Your task to perform on an android device: turn off translation in the chrome app Image 0: 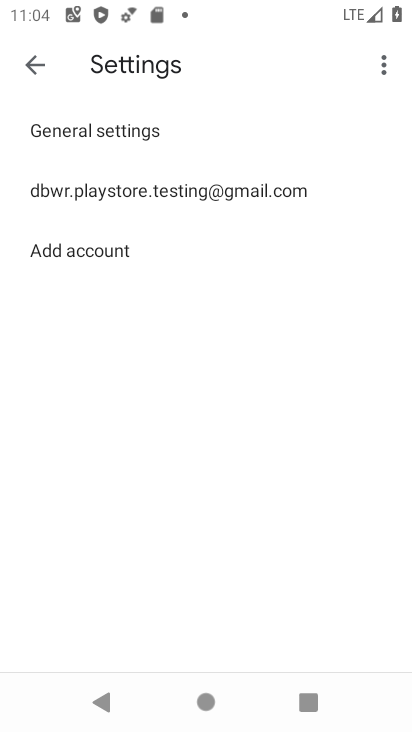
Step 0: press home button
Your task to perform on an android device: turn off translation in the chrome app Image 1: 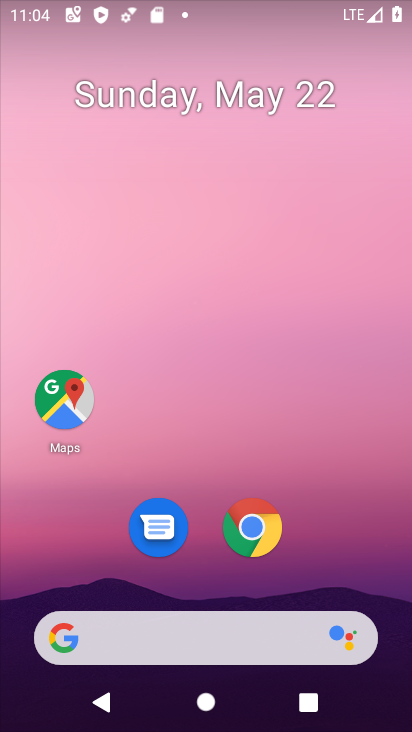
Step 1: click (248, 536)
Your task to perform on an android device: turn off translation in the chrome app Image 2: 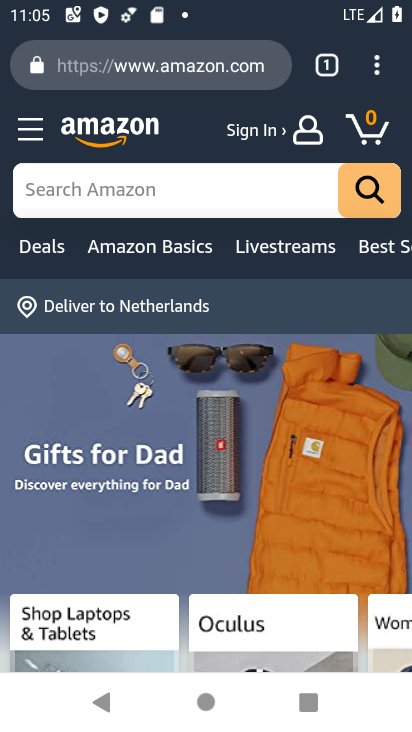
Step 2: click (385, 63)
Your task to perform on an android device: turn off translation in the chrome app Image 3: 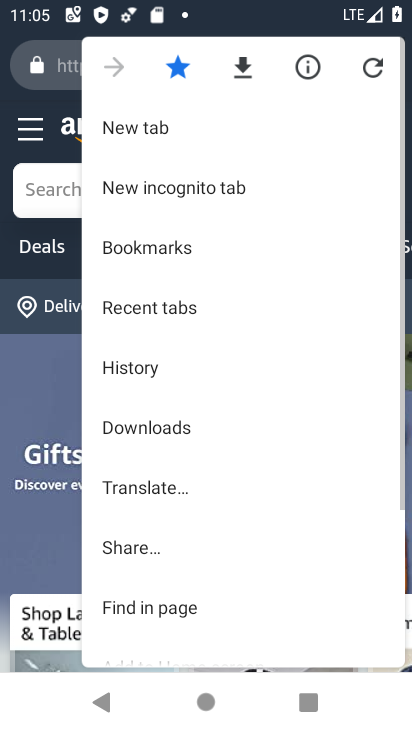
Step 3: drag from (158, 553) to (230, 284)
Your task to perform on an android device: turn off translation in the chrome app Image 4: 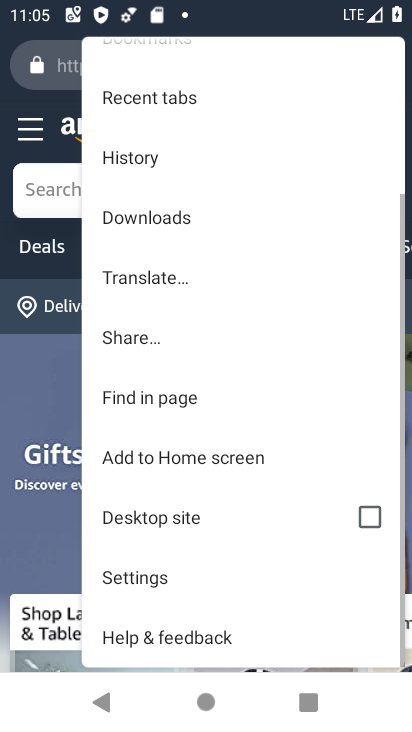
Step 4: click (181, 571)
Your task to perform on an android device: turn off translation in the chrome app Image 5: 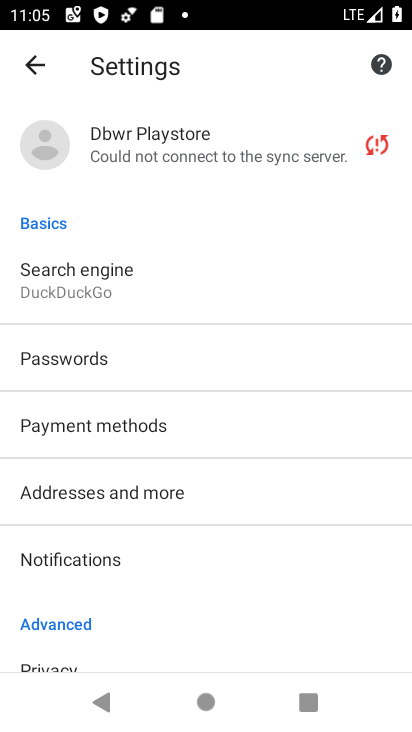
Step 5: drag from (95, 709) to (162, 351)
Your task to perform on an android device: turn off translation in the chrome app Image 6: 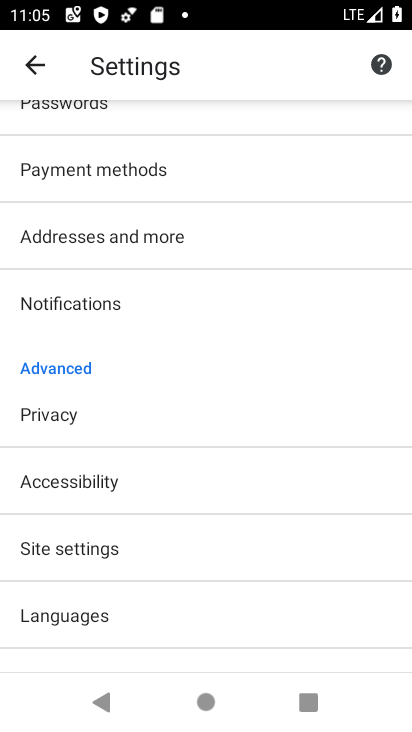
Step 6: click (163, 604)
Your task to perform on an android device: turn off translation in the chrome app Image 7: 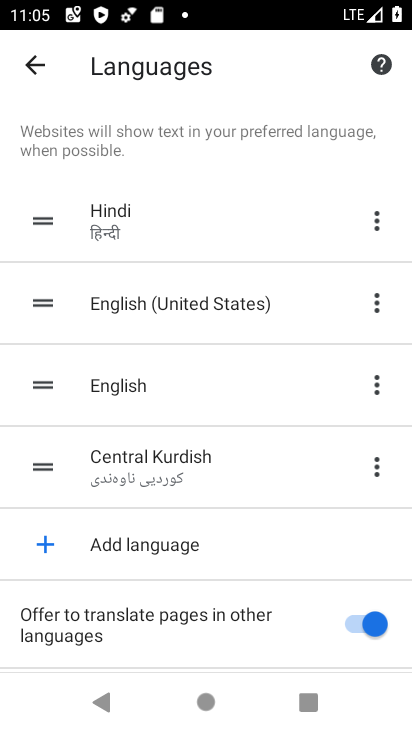
Step 7: click (361, 611)
Your task to perform on an android device: turn off translation in the chrome app Image 8: 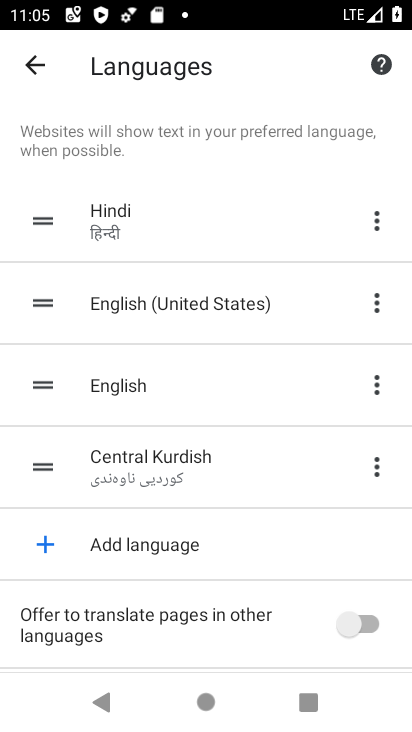
Step 8: task complete